Your task to perform on an android device: Search for vegetarian restaurants on Maps Image 0: 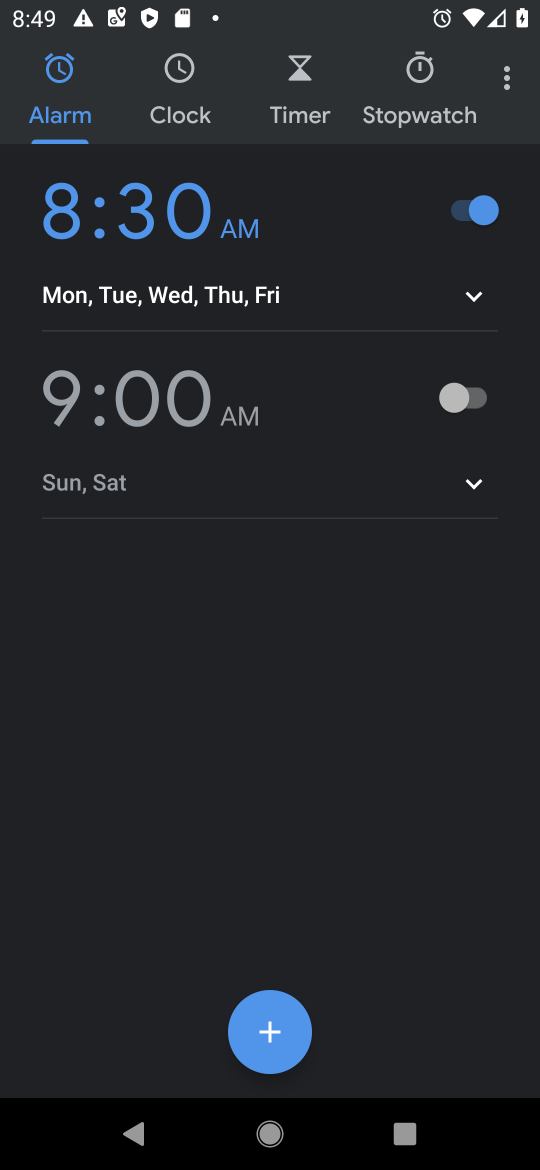
Step 0: press home button
Your task to perform on an android device: Search for vegetarian restaurants on Maps Image 1: 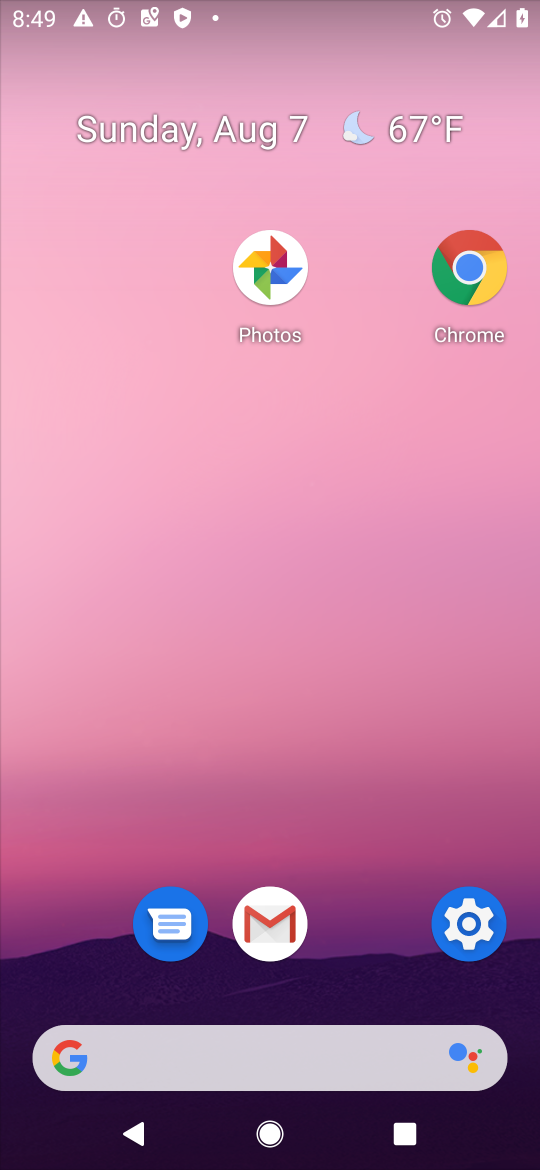
Step 1: drag from (350, 1104) to (289, 278)
Your task to perform on an android device: Search for vegetarian restaurants on Maps Image 2: 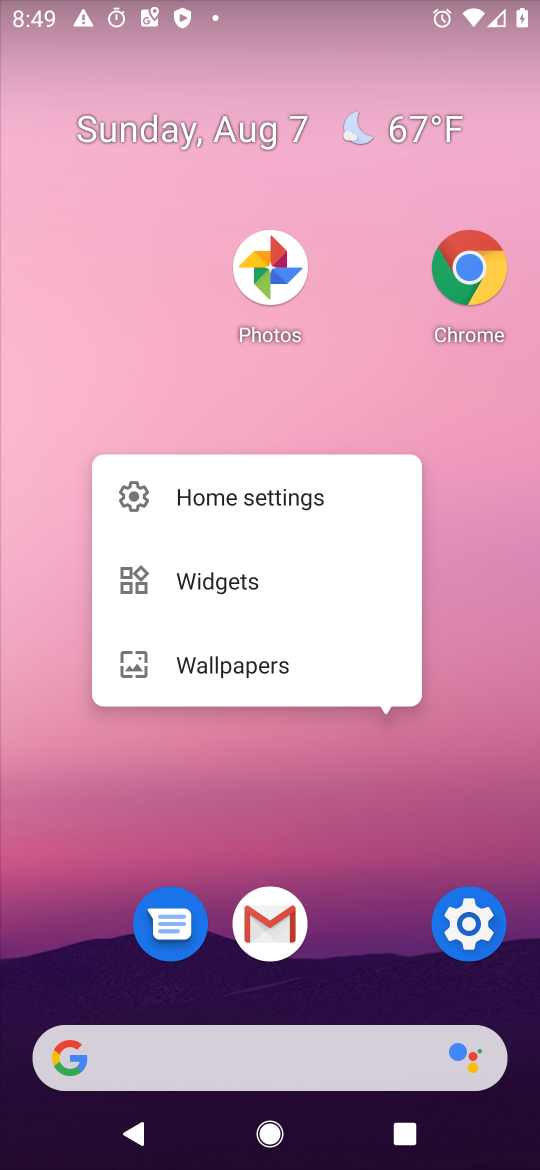
Step 2: click (319, 837)
Your task to perform on an android device: Search for vegetarian restaurants on Maps Image 3: 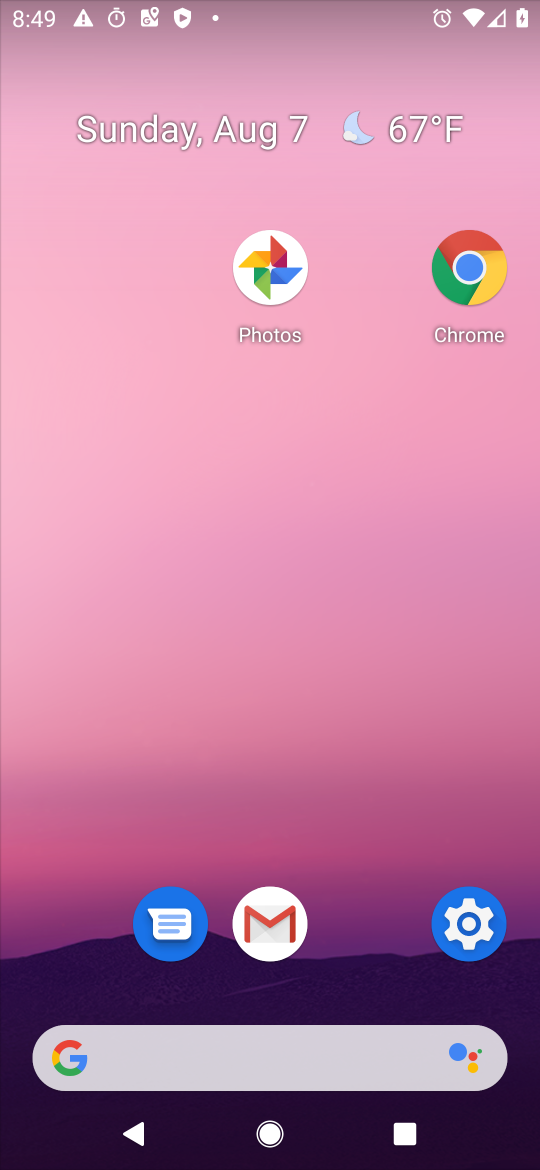
Step 3: drag from (370, 1068) to (274, 341)
Your task to perform on an android device: Search for vegetarian restaurants on Maps Image 4: 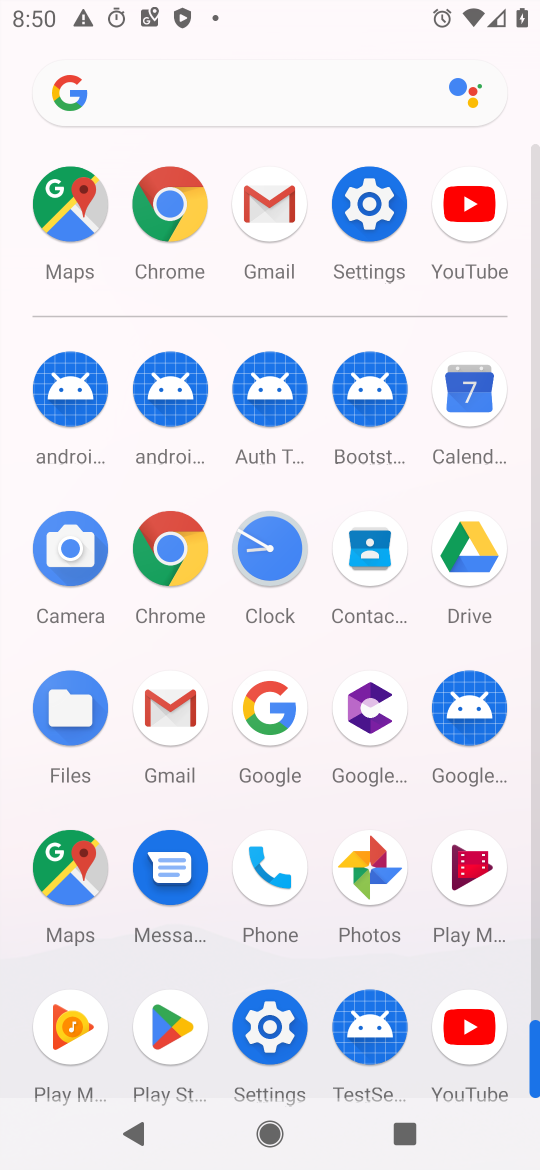
Step 4: click (83, 229)
Your task to perform on an android device: Search for vegetarian restaurants on Maps Image 5: 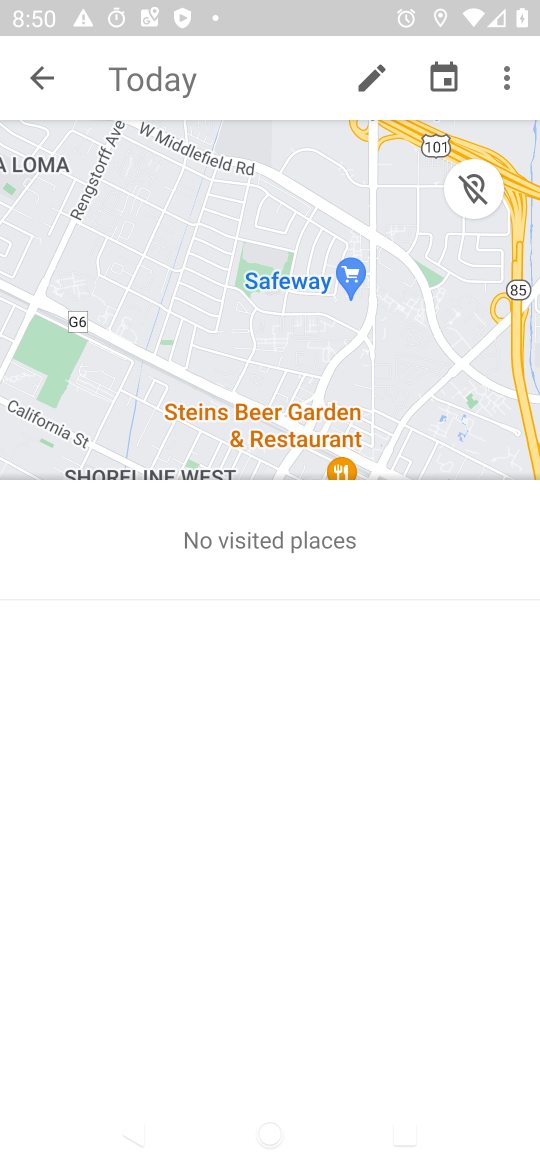
Step 5: click (44, 84)
Your task to perform on an android device: Search for vegetarian restaurants on Maps Image 6: 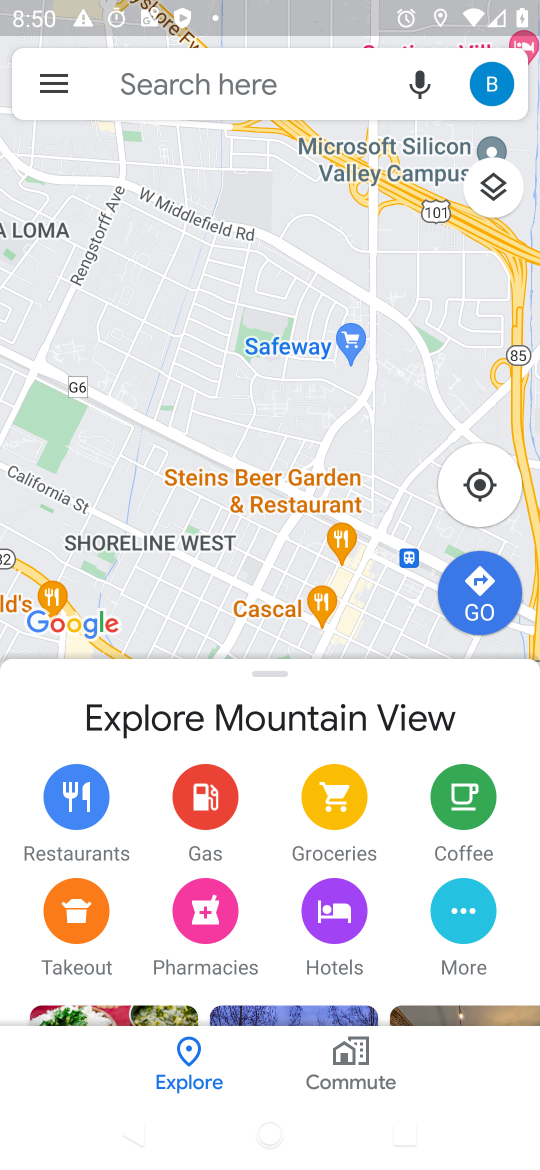
Step 6: click (160, 70)
Your task to perform on an android device: Search for vegetarian restaurants on Maps Image 7: 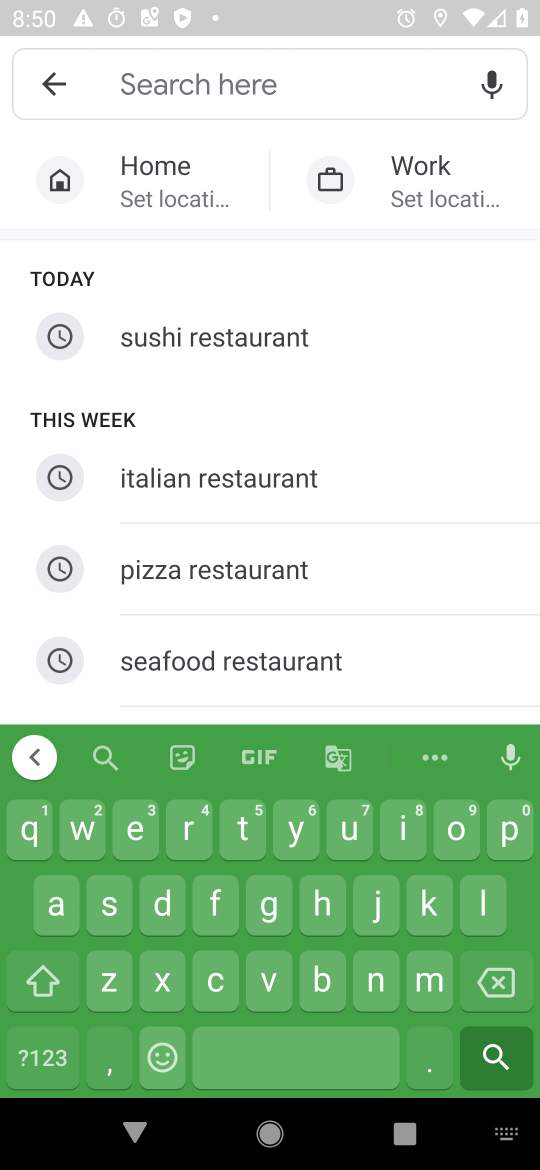
Step 7: click (268, 977)
Your task to perform on an android device: Search for vegetarian restaurants on Maps Image 8: 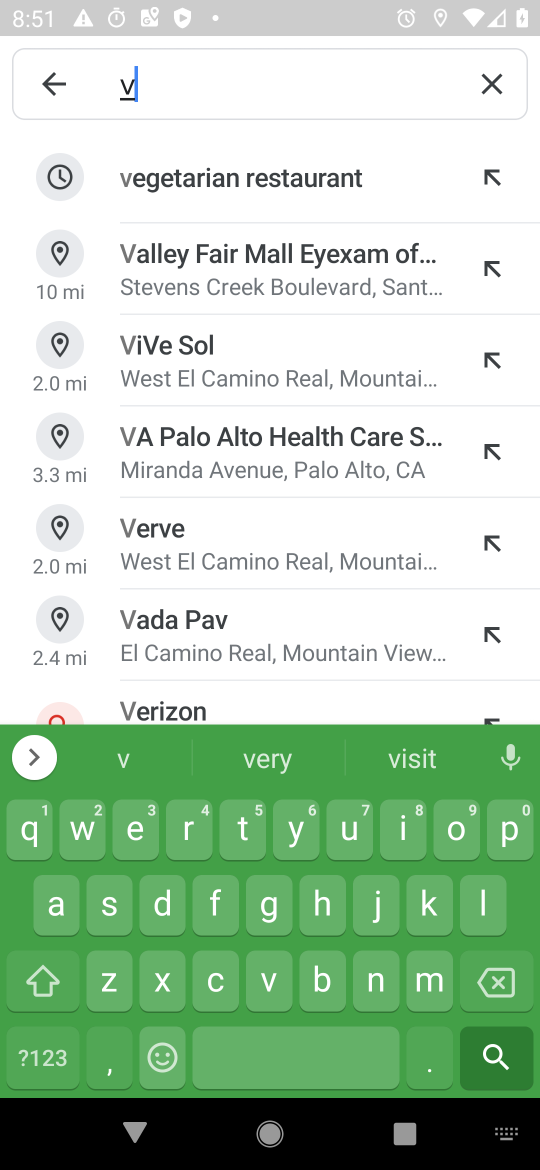
Step 8: click (245, 186)
Your task to perform on an android device: Search for vegetarian restaurants on Maps Image 9: 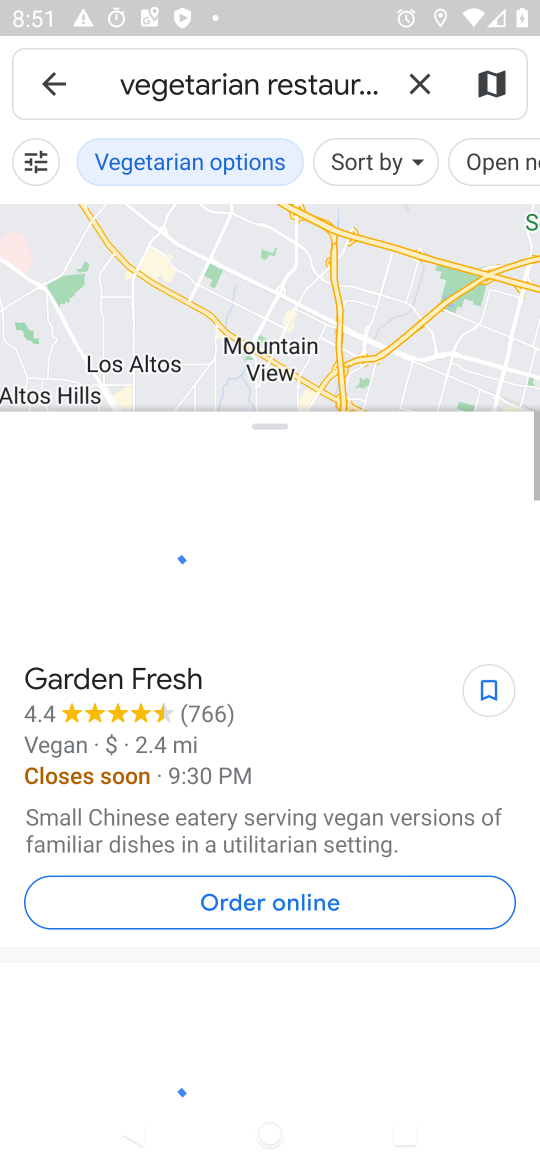
Step 9: task complete